Your task to perform on an android device: Search for flights from Mexico city to Boston Image 0: 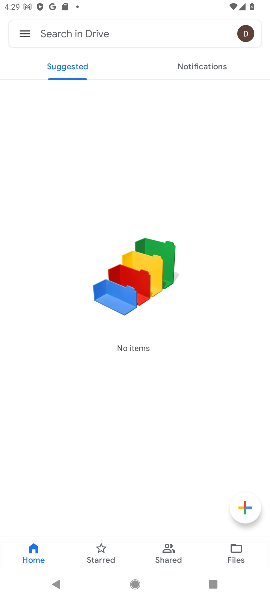
Step 0: click (152, 32)
Your task to perform on an android device: Search for flights from Mexico city to Boston Image 1: 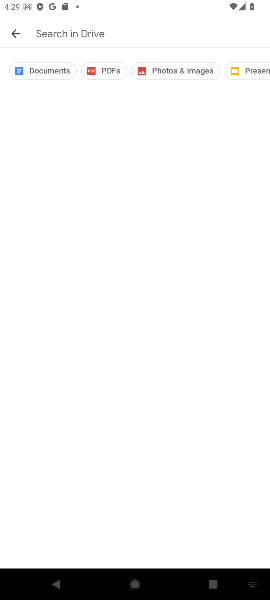
Step 1: type "Mexico city to Boston"
Your task to perform on an android device: Search for flights from Mexico city to Boston Image 2: 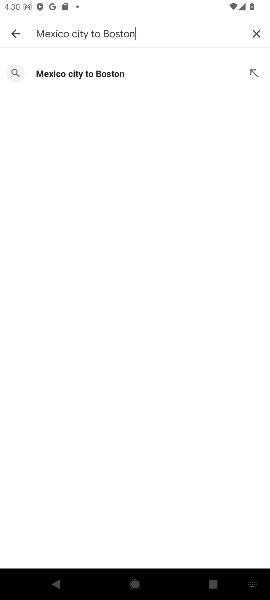
Step 2: task complete